Your task to perform on an android device: Open settings on Google Maps Image 0: 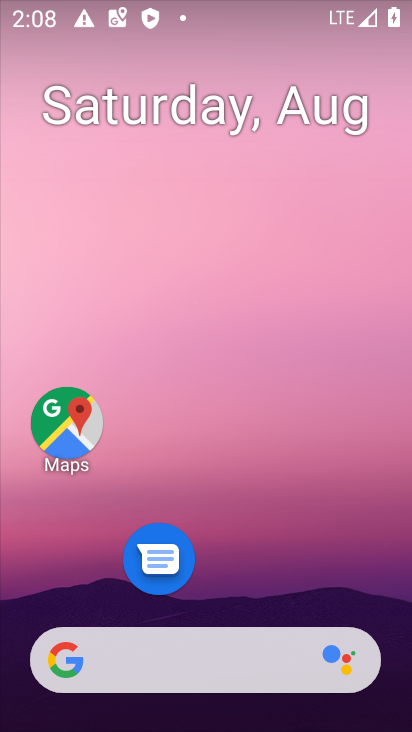
Step 0: drag from (239, 630) to (206, 323)
Your task to perform on an android device: Open settings on Google Maps Image 1: 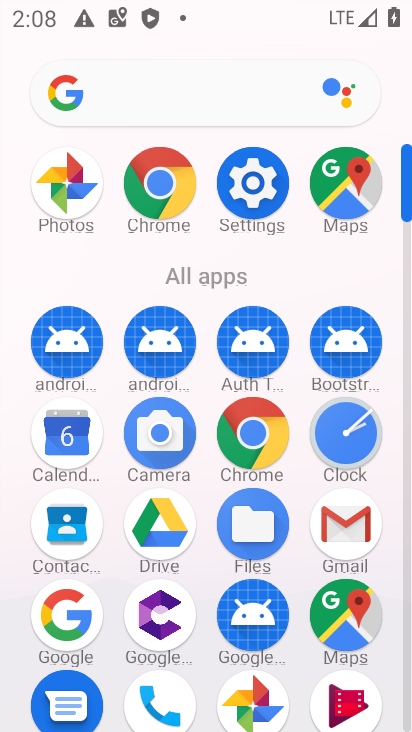
Step 1: click (352, 618)
Your task to perform on an android device: Open settings on Google Maps Image 2: 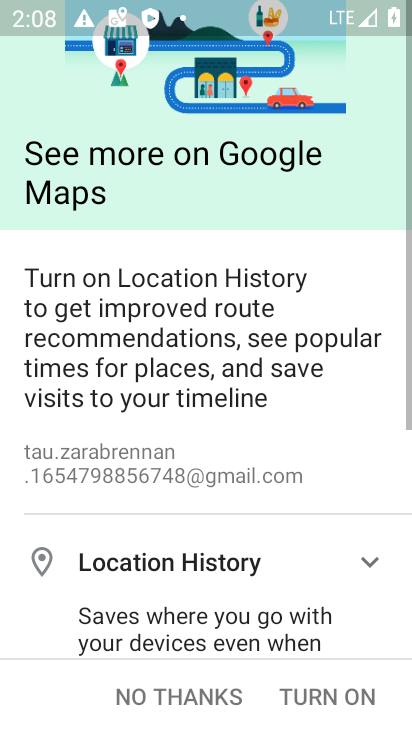
Step 2: press back button
Your task to perform on an android device: Open settings on Google Maps Image 3: 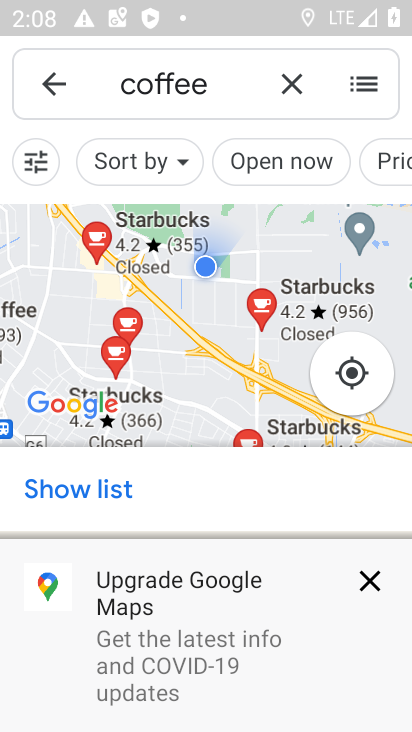
Step 3: click (366, 581)
Your task to perform on an android device: Open settings on Google Maps Image 4: 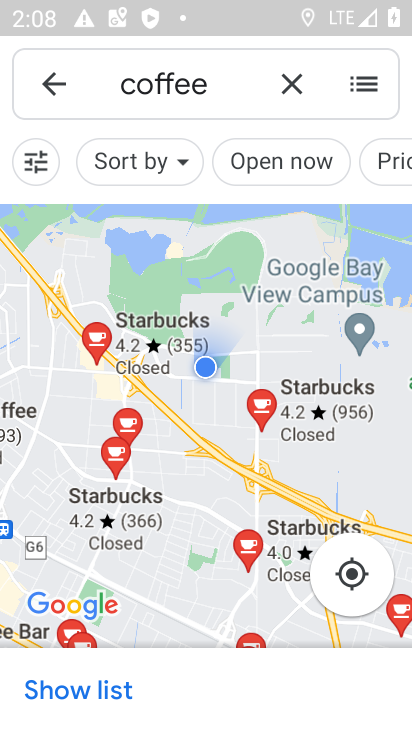
Step 4: click (53, 83)
Your task to perform on an android device: Open settings on Google Maps Image 5: 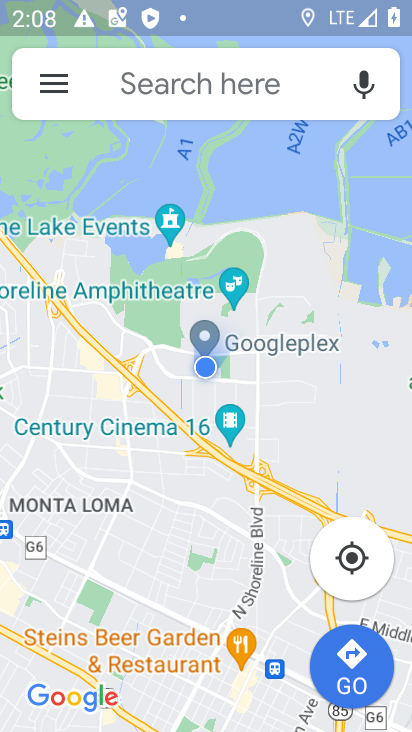
Step 5: click (53, 95)
Your task to perform on an android device: Open settings on Google Maps Image 6: 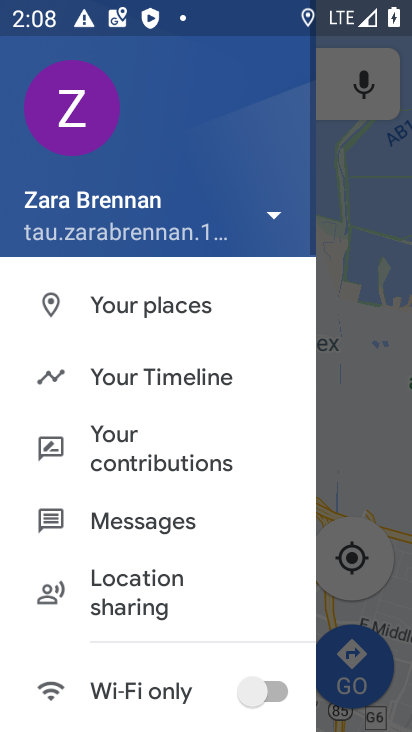
Step 6: drag from (165, 517) to (160, 162)
Your task to perform on an android device: Open settings on Google Maps Image 7: 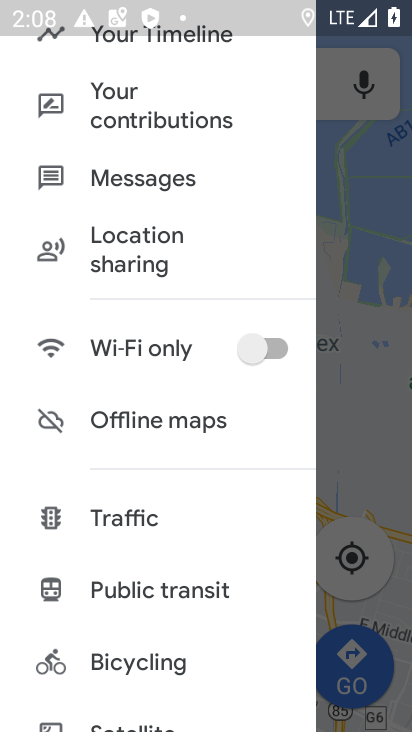
Step 7: drag from (130, 623) to (98, 141)
Your task to perform on an android device: Open settings on Google Maps Image 8: 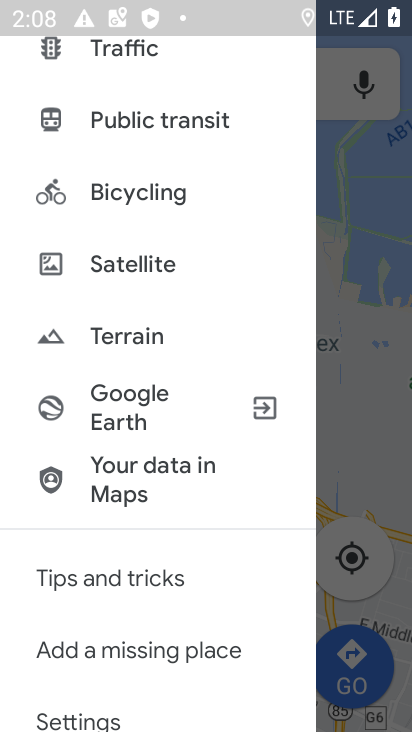
Step 8: drag from (121, 634) to (121, 207)
Your task to perform on an android device: Open settings on Google Maps Image 9: 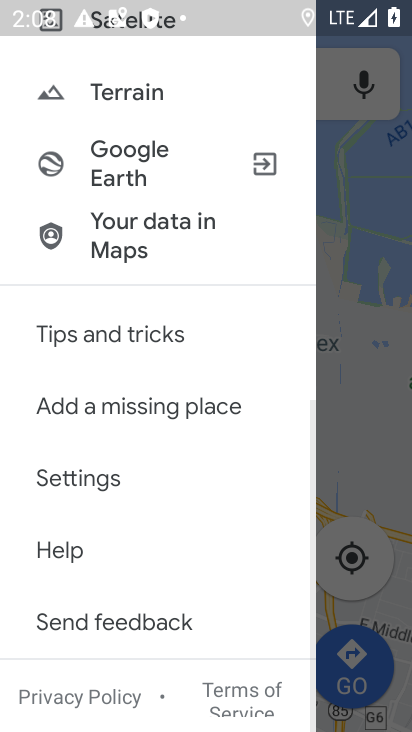
Step 9: click (99, 487)
Your task to perform on an android device: Open settings on Google Maps Image 10: 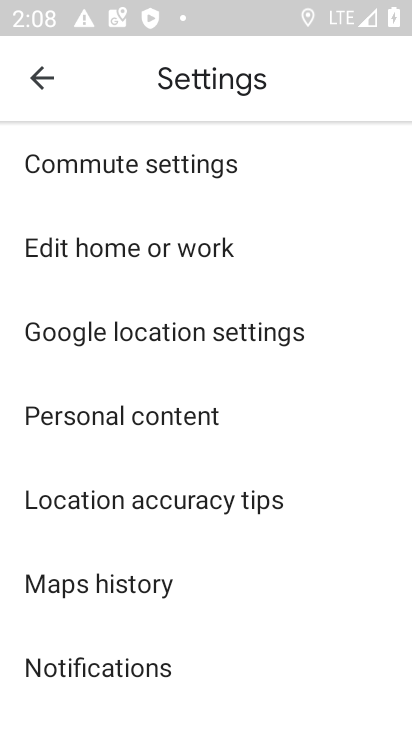
Step 10: task complete